Your task to perform on an android device: change keyboard looks Image 0: 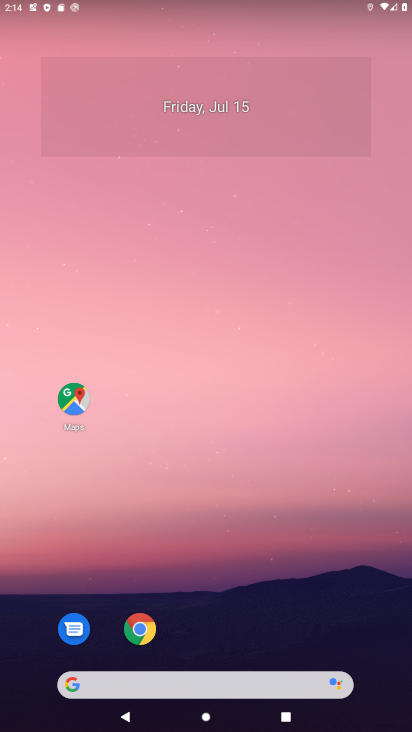
Step 0: drag from (203, 571) to (221, 99)
Your task to perform on an android device: change keyboard looks Image 1: 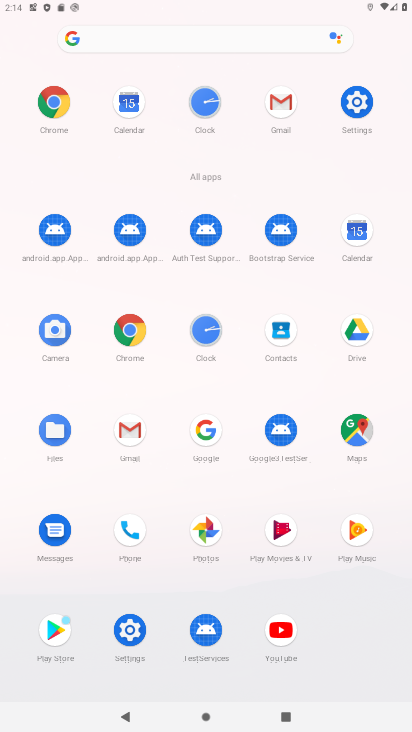
Step 1: click (358, 102)
Your task to perform on an android device: change keyboard looks Image 2: 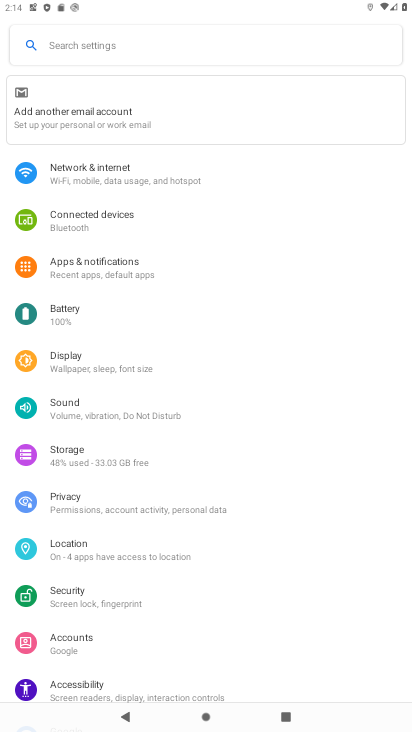
Step 2: drag from (182, 638) to (153, 207)
Your task to perform on an android device: change keyboard looks Image 3: 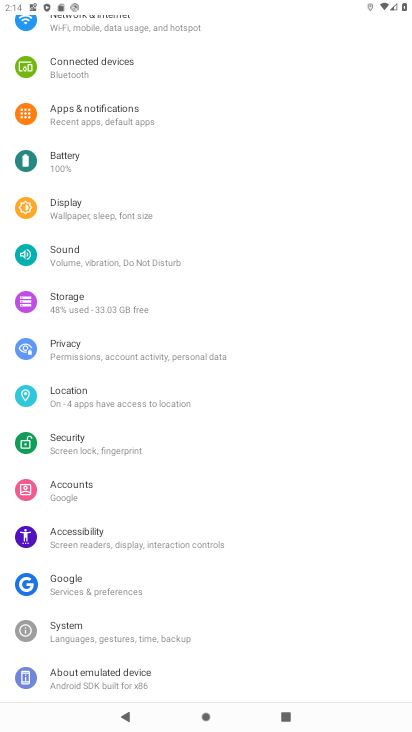
Step 3: click (83, 624)
Your task to perform on an android device: change keyboard looks Image 4: 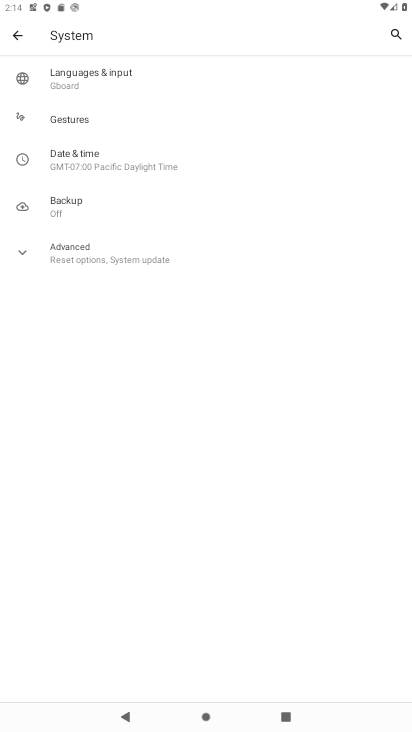
Step 4: click (101, 73)
Your task to perform on an android device: change keyboard looks Image 5: 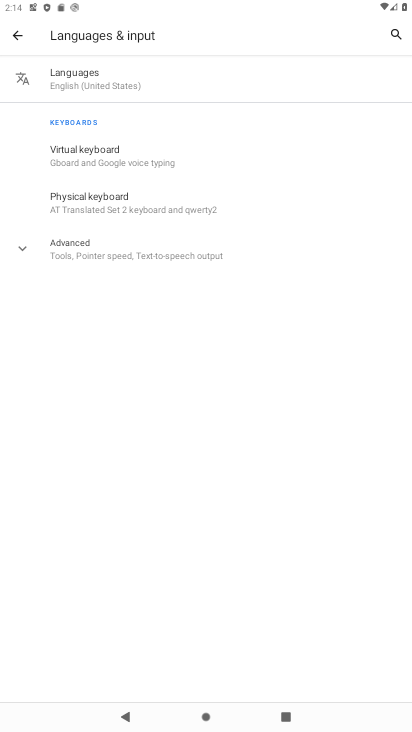
Step 5: click (93, 156)
Your task to perform on an android device: change keyboard looks Image 6: 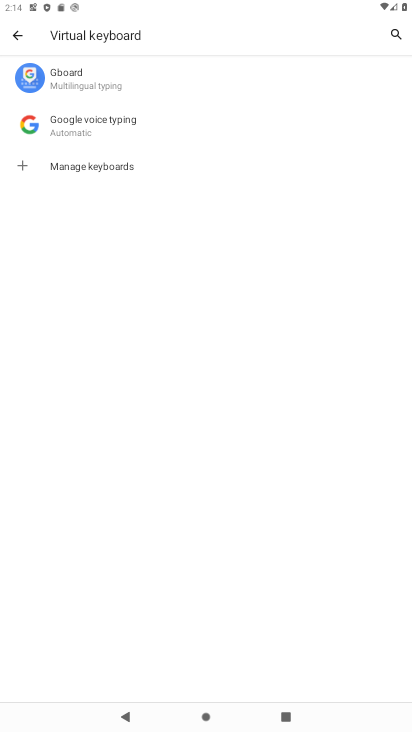
Step 6: click (83, 77)
Your task to perform on an android device: change keyboard looks Image 7: 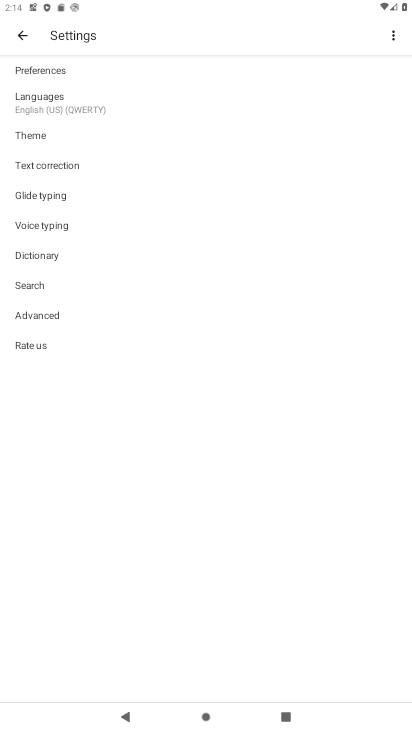
Step 7: click (46, 135)
Your task to perform on an android device: change keyboard looks Image 8: 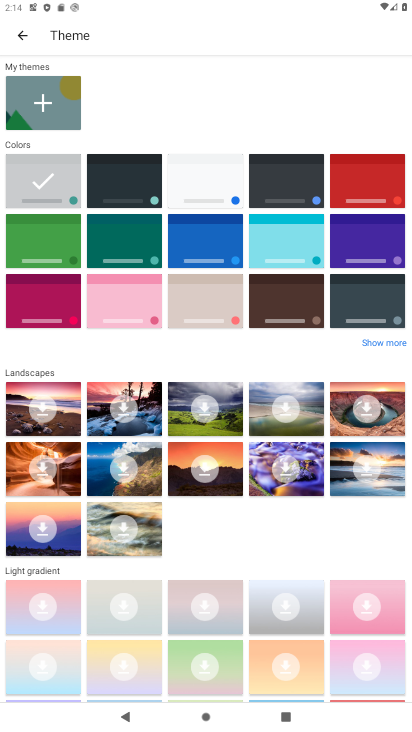
Step 8: click (142, 183)
Your task to perform on an android device: change keyboard looks Image 9: 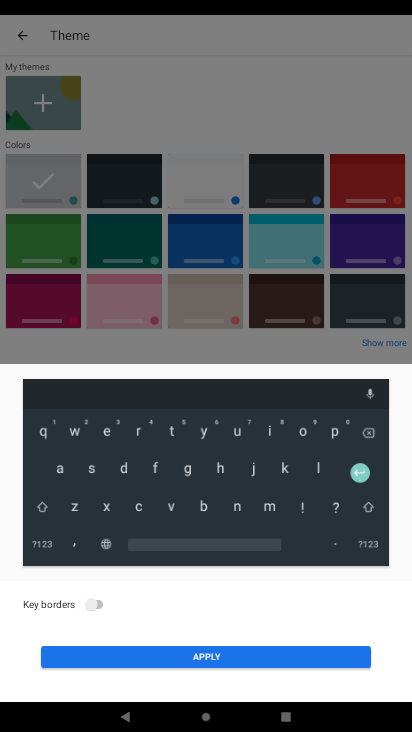
Step 9: click (204, 661)
Your task to perform on an android device: change keyboard looks Image 10: 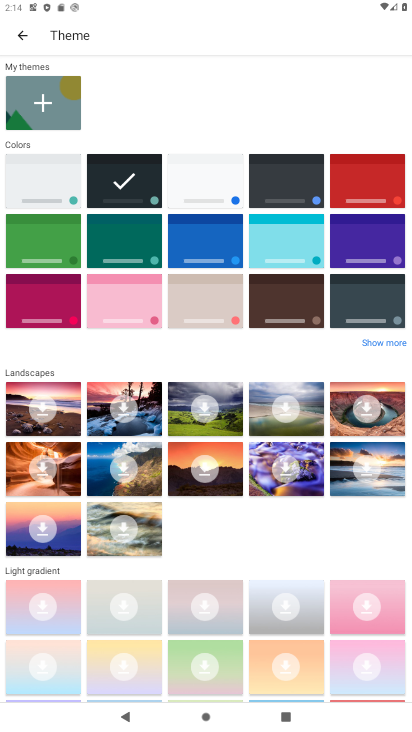
Step 10: task complete